Your task to perform on an android device: Install the Weather app Image 0: 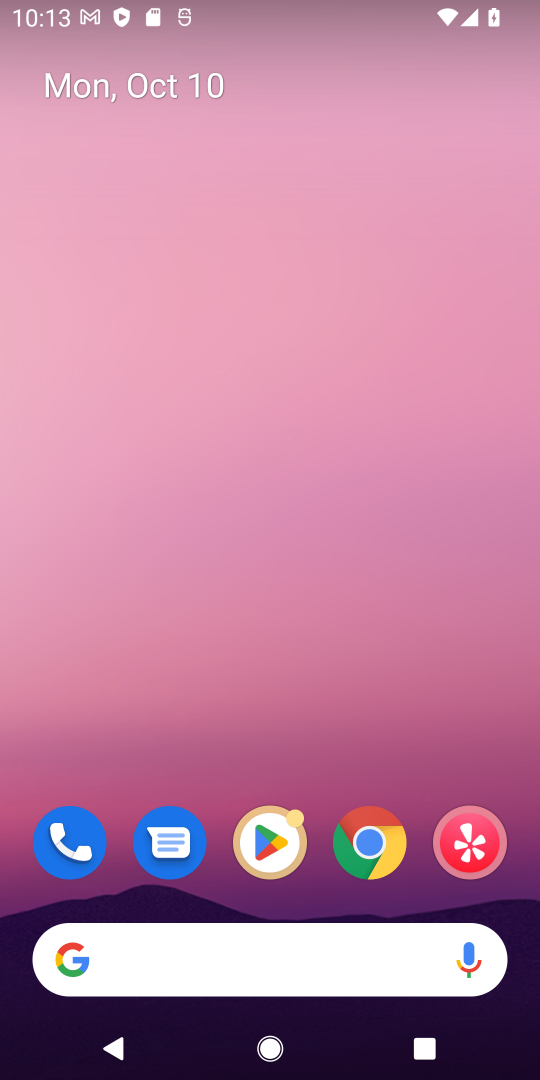
Step 0: click (262, 836)
Your task to perform on an android device: Install the Weather app Image 1: 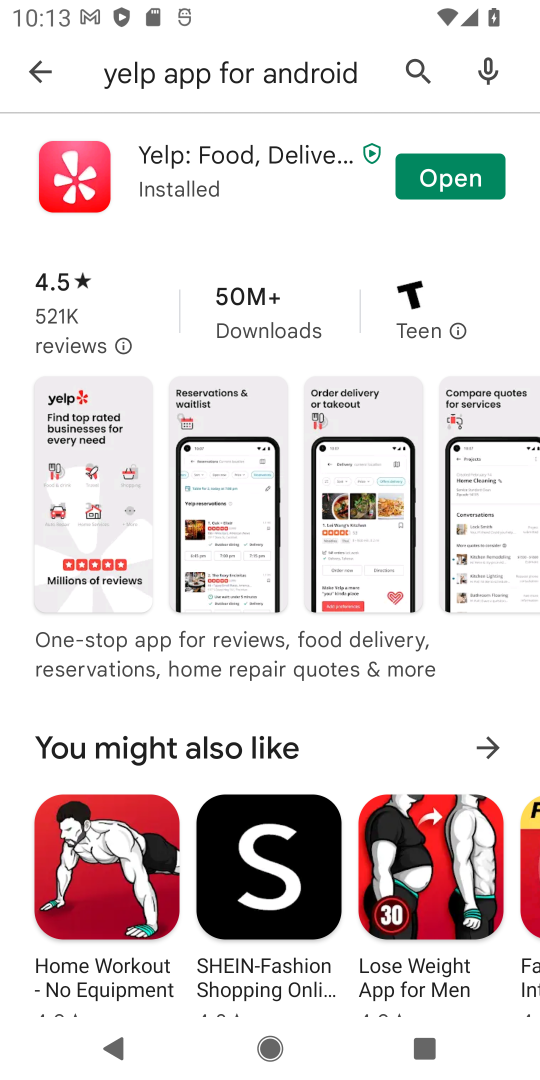
Step 1: click (254, 85)
Your task to perform on an android device: Install the Weather app Image 2: 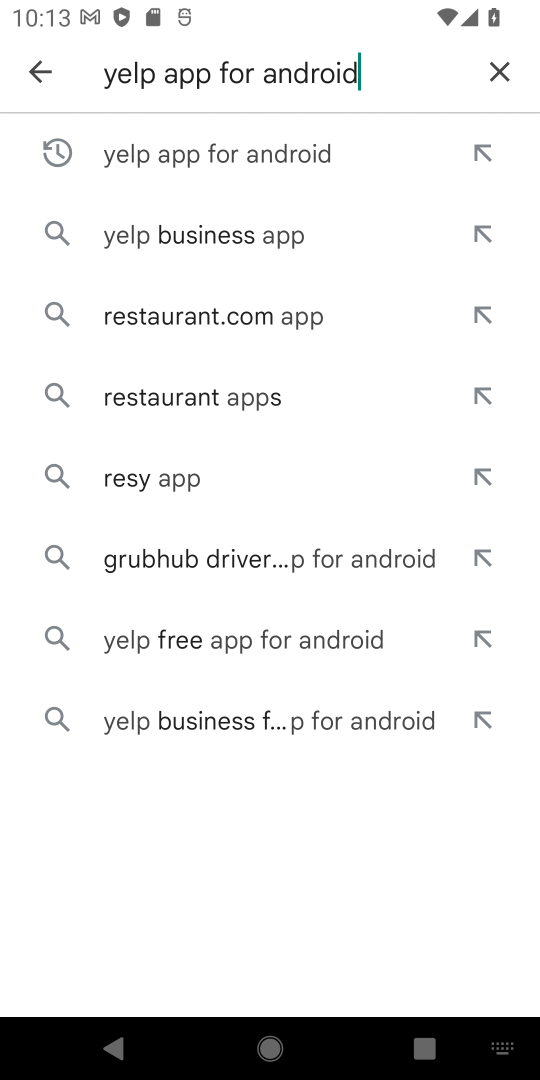
Step 2: click (490, 74)
Your task to perform on an android device: Install the Weather app Image 3: 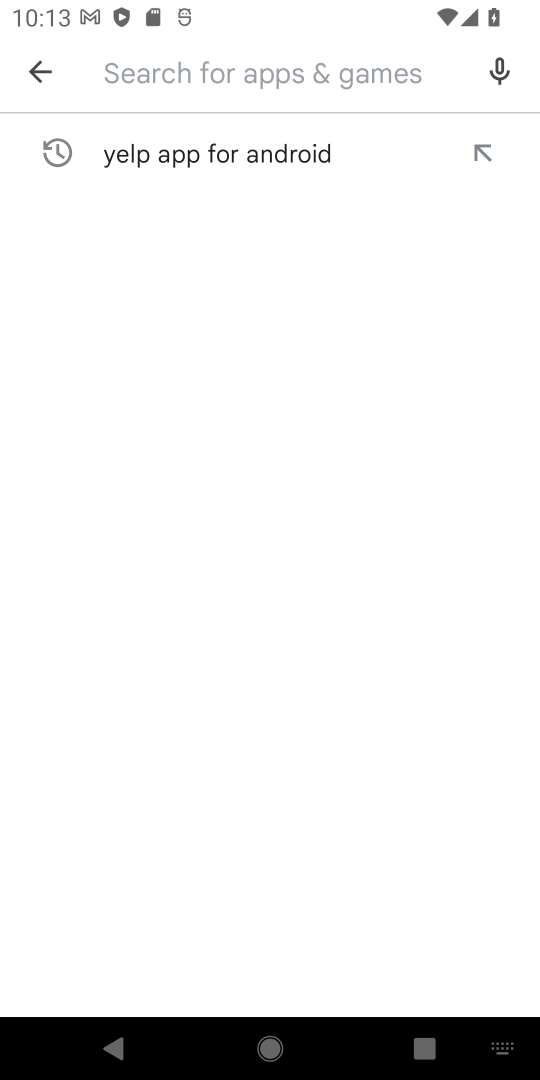
Step 3: type "weather app"
Your task to perform on an android device: Install the Weather app Image 4: 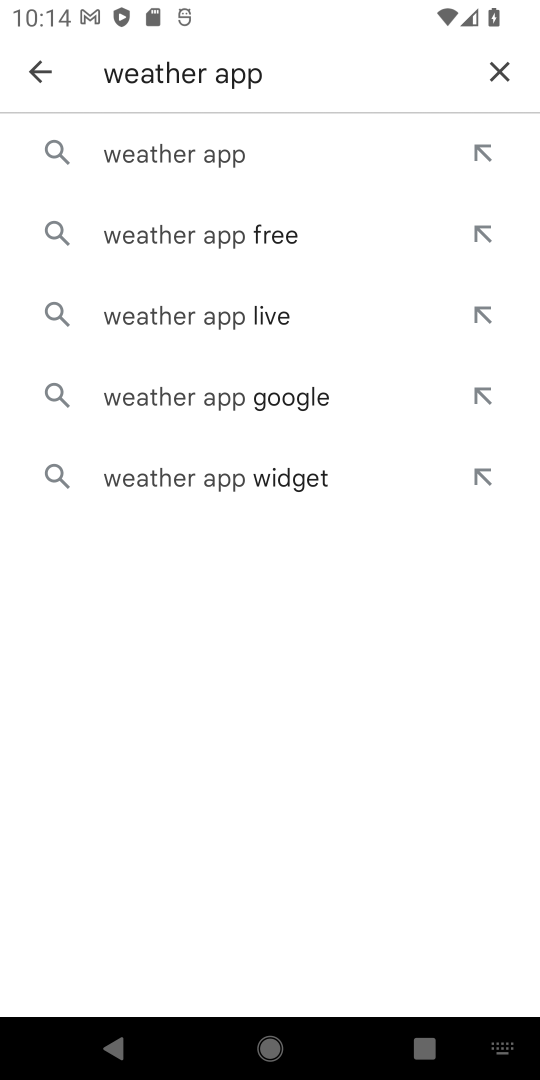
Step 4: click (206, 158)
Your task to perform on an android device: Install the Weather app Image 5: 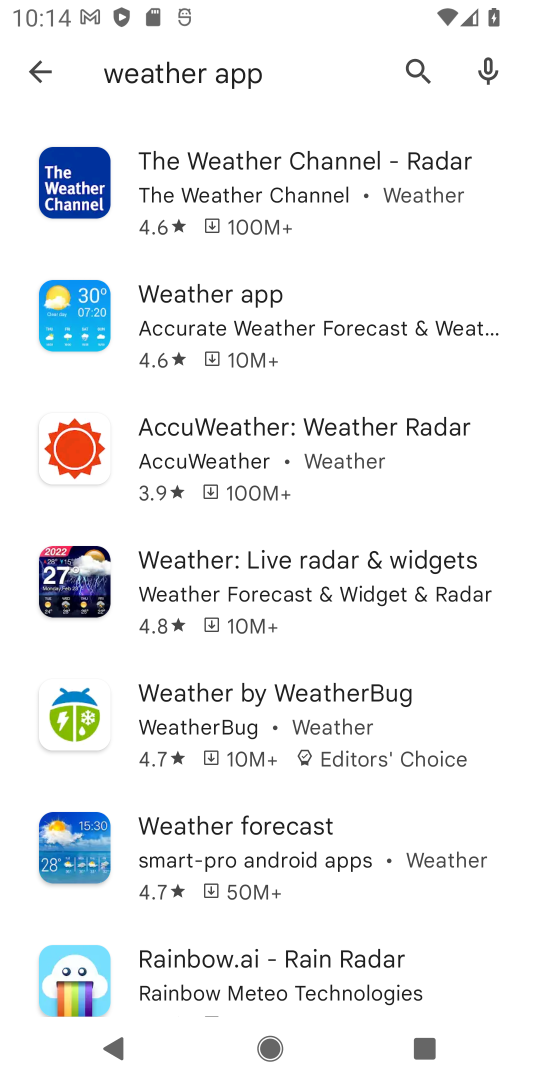
Step 5: click (162, 307)
Your task to perform on an android device: Install the Weather app Image 6: 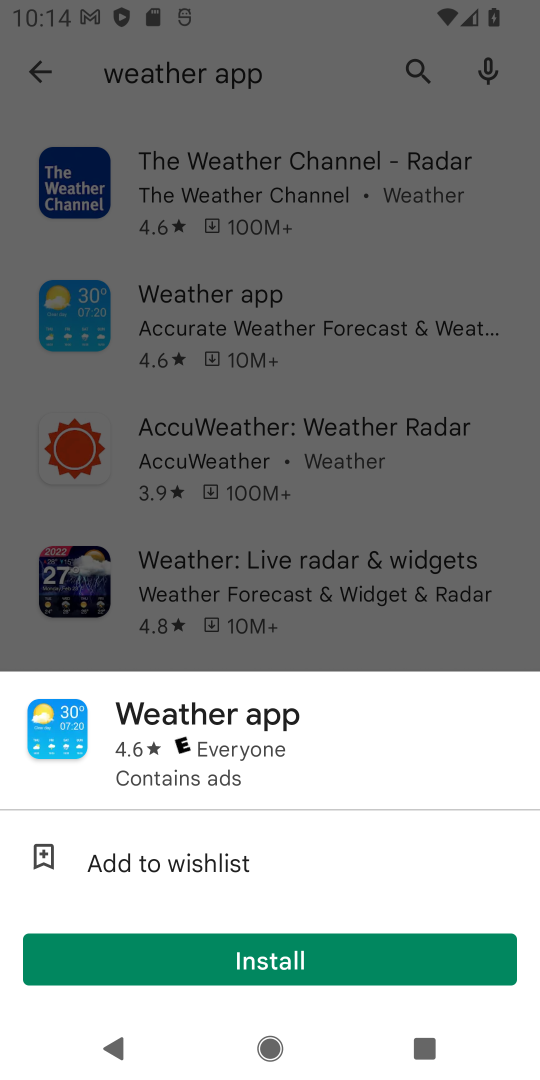
Step 6: click (260, 969)
Your task to perform on an android device: Install the Weather app Image 7: 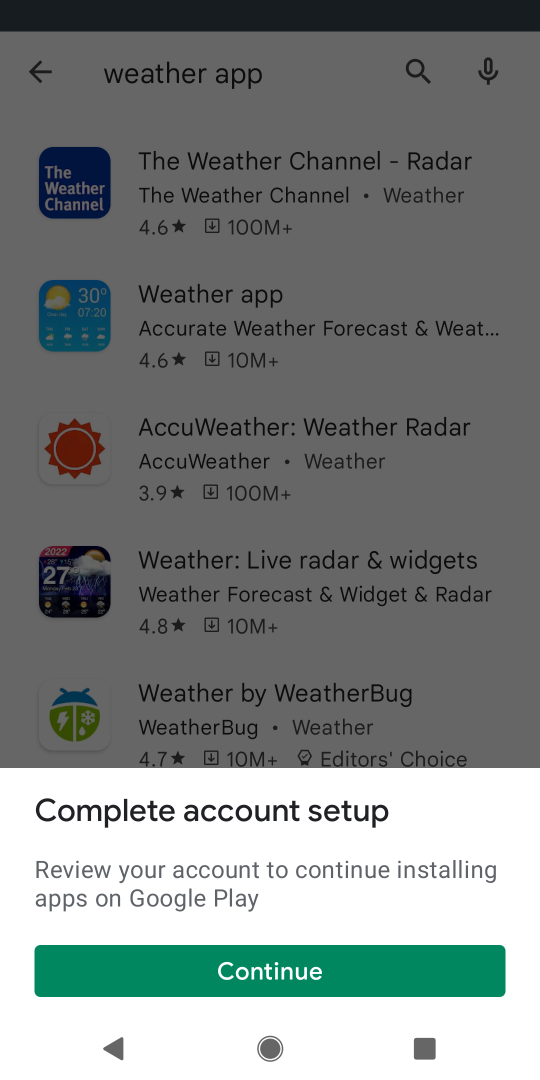
Step 7: click (284, 981)
Your task to perform on an android device: Install the Weather app Image 8: 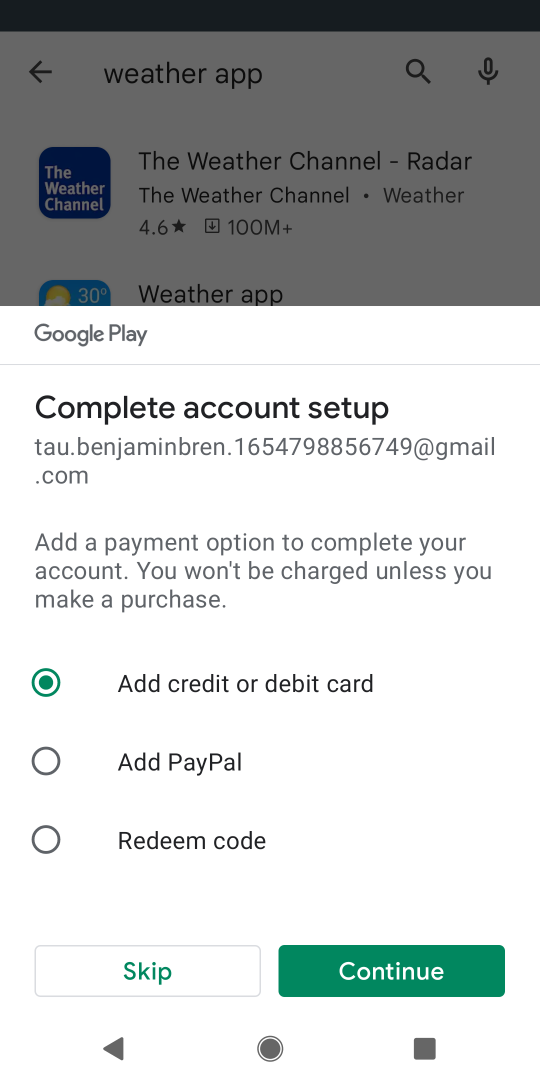
Step 8: click (156, 969)
Your task to perform on an android device: Install the Weather app Image 9: 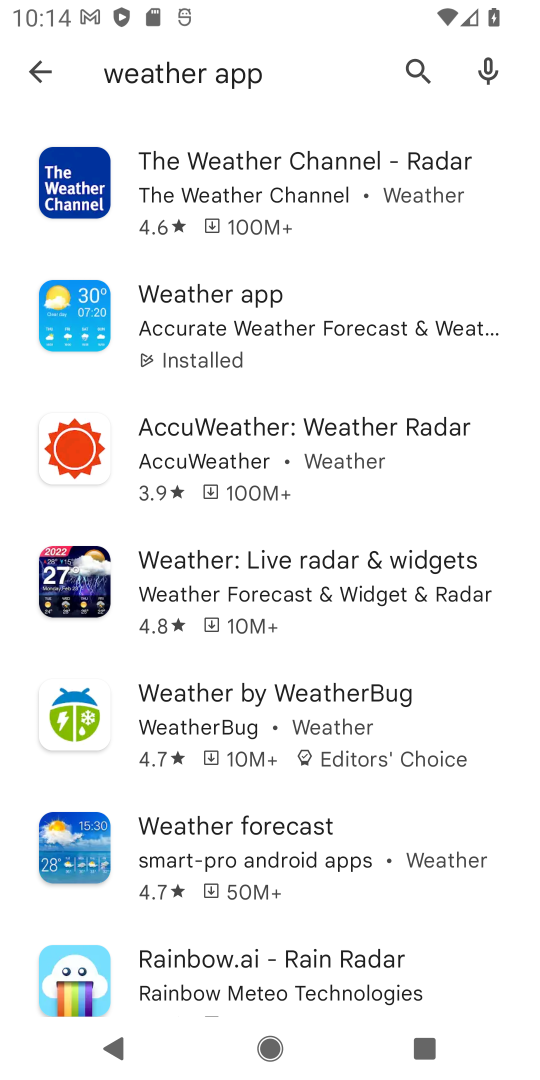
Step 9: task complete